Your task to perform on an android device: Go to calendar. Show me events next week Image 0: 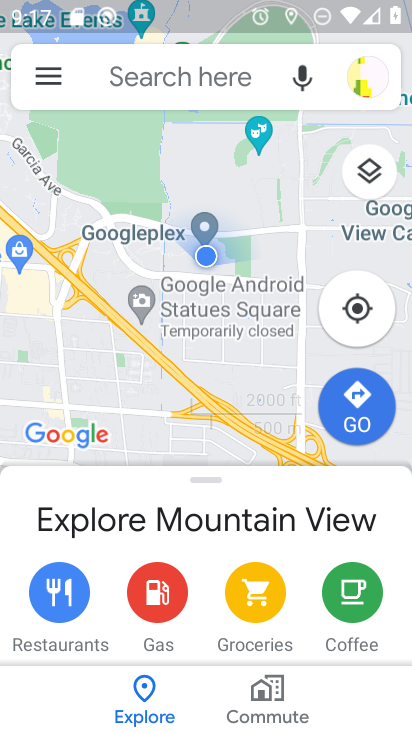
Step 0: press home button
Your task to perform on an android device: Go to calendar. Show me events next week Image 1: 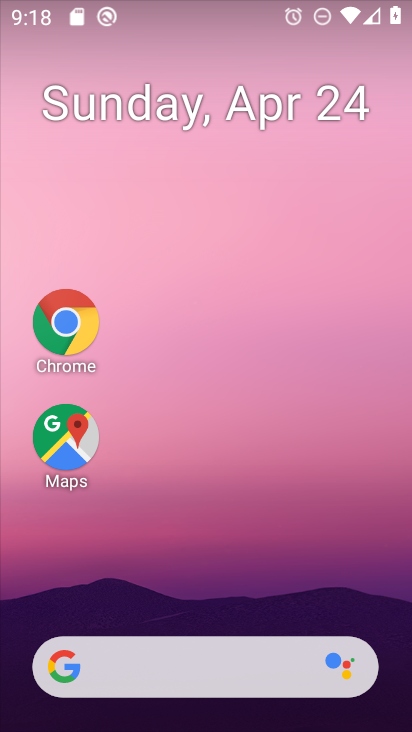
Step 1: drag from (150, 528) to (97, 51)
Your task to perform on an android device: Go to calendar. Show me events next week Image 2: 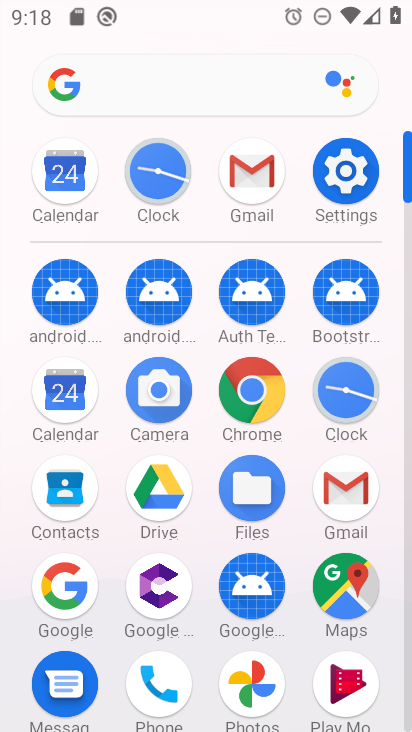
Step 2: click (64, 401)
Your task to perform on an android device: Go to calendar. Show me events next week Image 3: 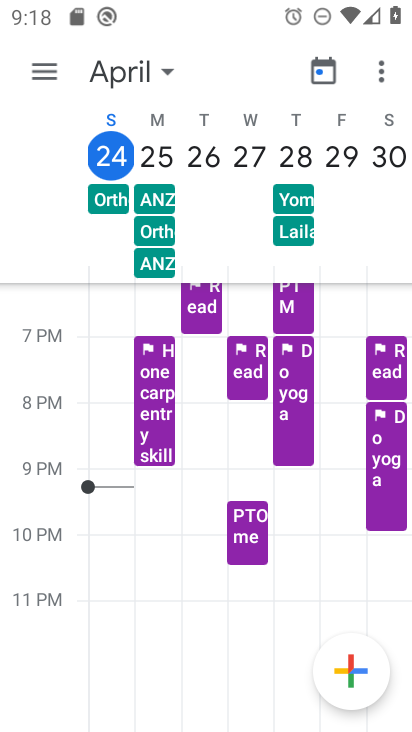
Step 3: click (165, 63)
Your task to perform on an android device: Go to calendar. Show me events next week Image 4: 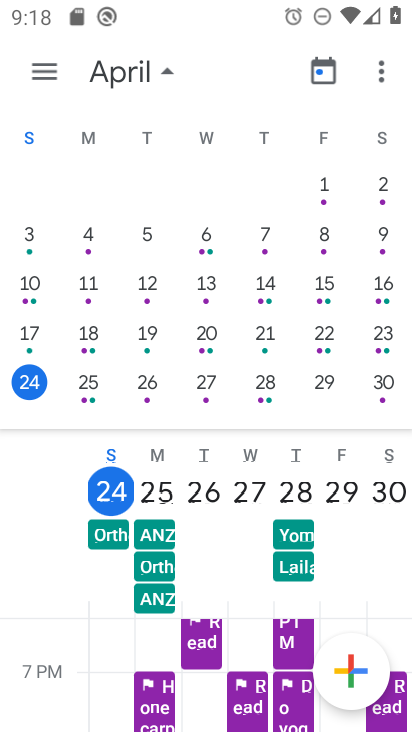
Step 4: task complete